Your task to perform on an android device: What's the weather today? Image 0: 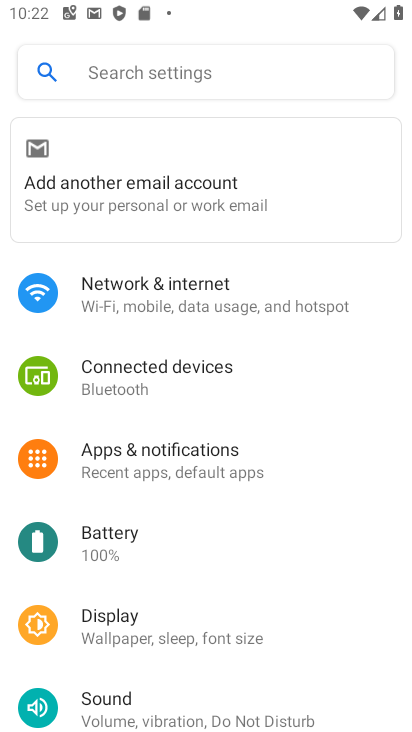
Step 0: press back button
Your task to perform on an android device: What's the weather today? Image 1: 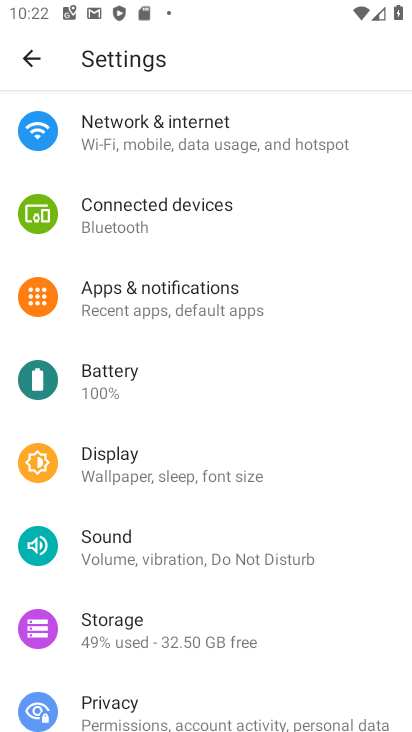
Step 1: press back button
Your task to perform on an android device: What's the weather today? Image 2: 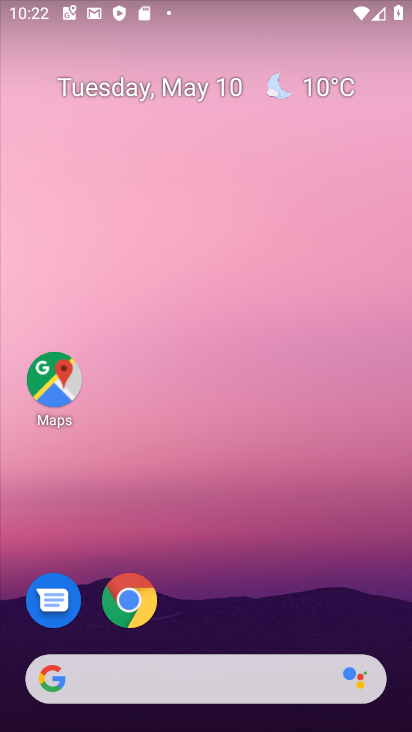
Step 2: drag from (204, 606) to (194, 2)
Your task to perform on an android device: What's the weather today? Image 3: 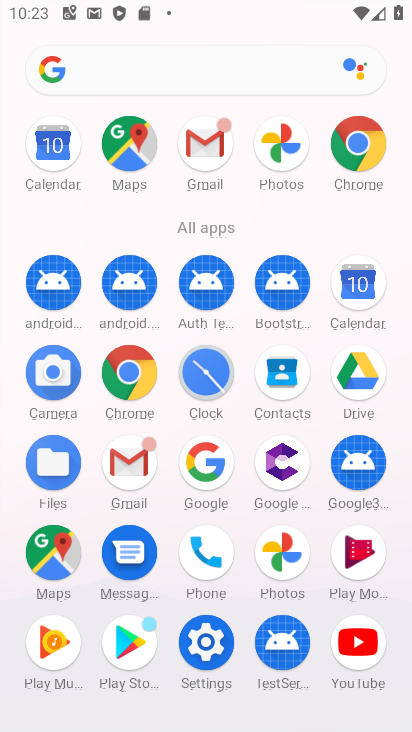
Step 3: click (125, 367)
Your task to perform on an android device: What's the weather today? Image 4: 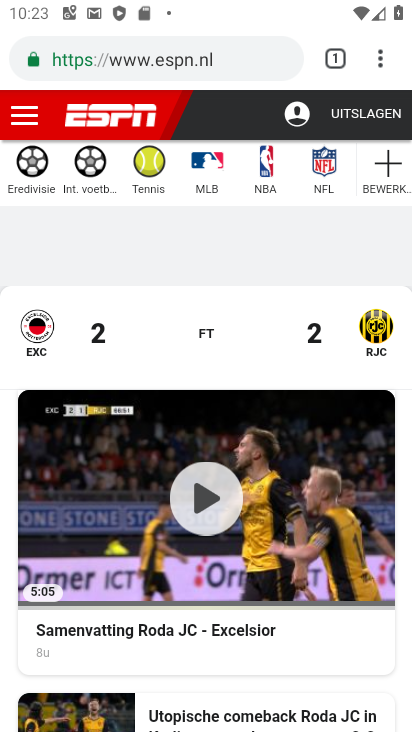
Step 4: click (188, 55)
Your task to perform on an android device: What's the weather today? Image 5: 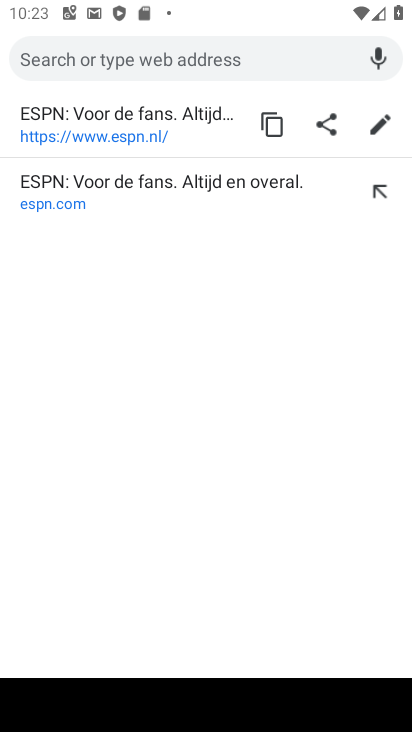
Step 5: type "What's the weather today?"
Your task to perform on an android device: What's the weather today? Image 6: 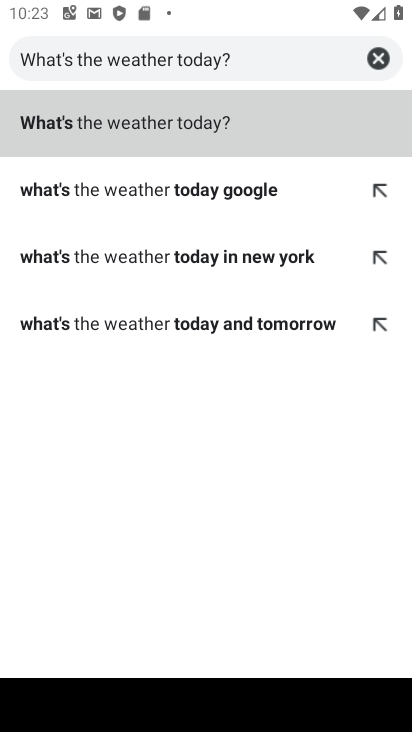
Step 6: click (157, 64)
Your task to perform on an android device: What's the weather today? Image 7: 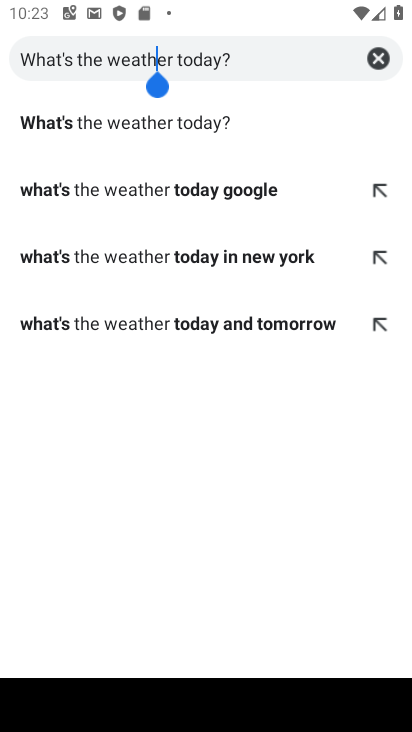
Step 7: click (161, 123)
Your task to perform on an android device: What's the weather today? Image 8: 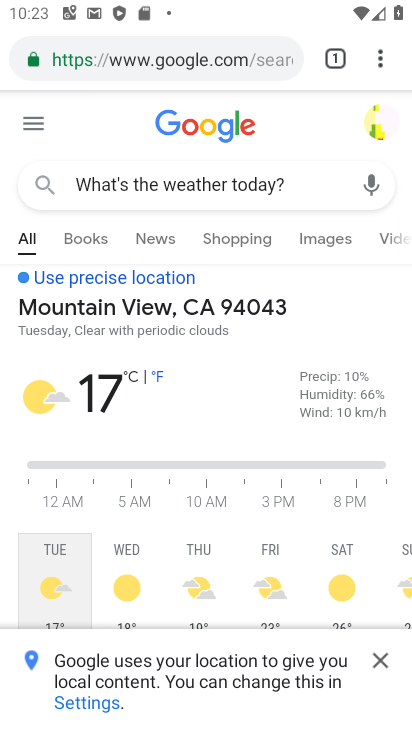
Step 8: task complete